Your task to perform on an android device: Open settings on Google Maps Image 0: 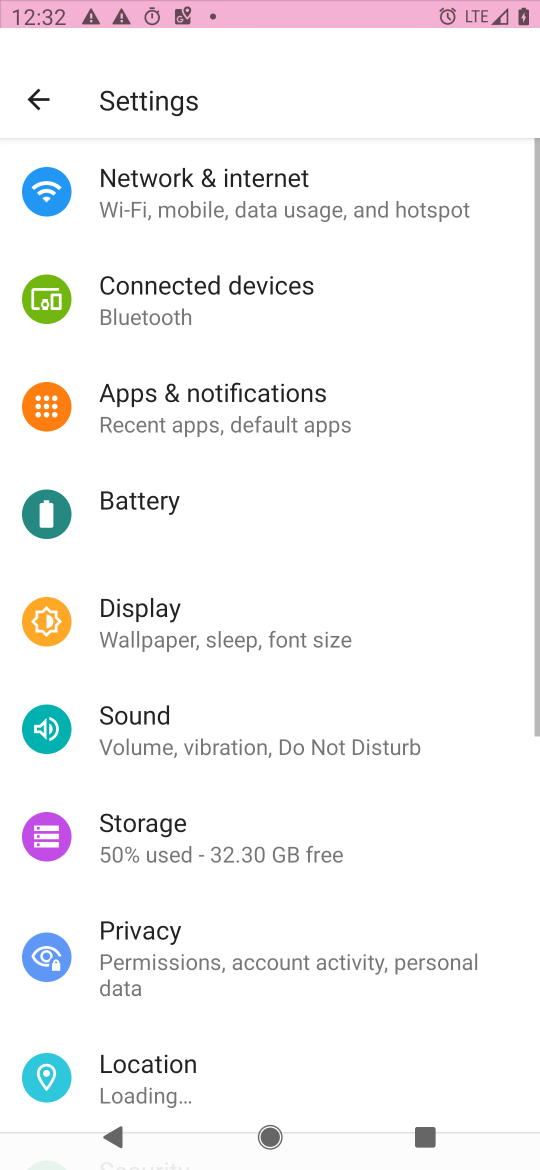
Step 0: click (318, 301)
Your task to perform on an android device: Open settings on Google Maps Image 1: 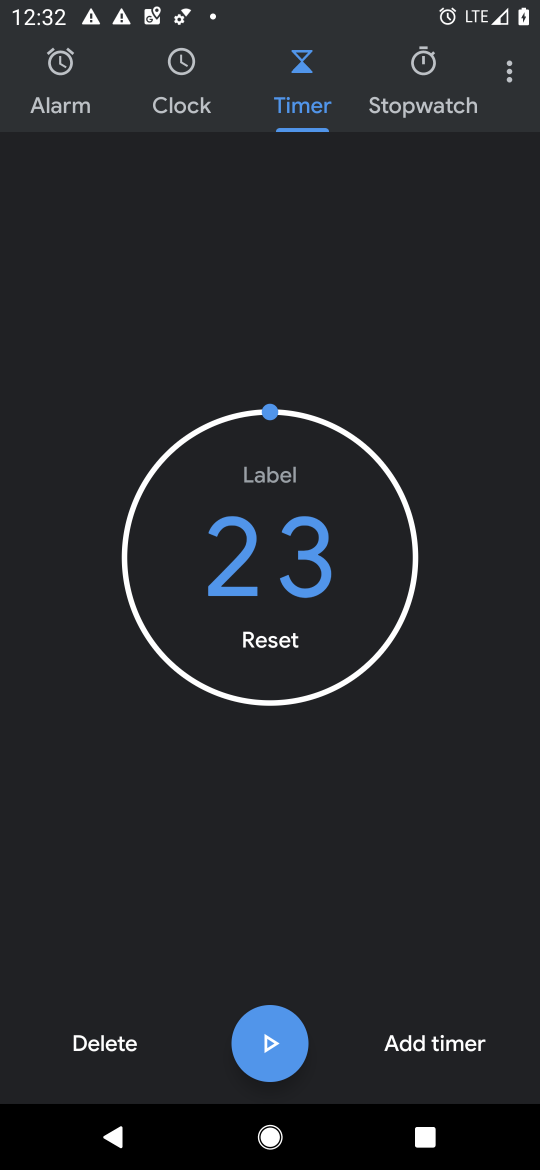
Step 1: press home button
Your task to perform on an android device: Open settings on Google Maps Image 2: 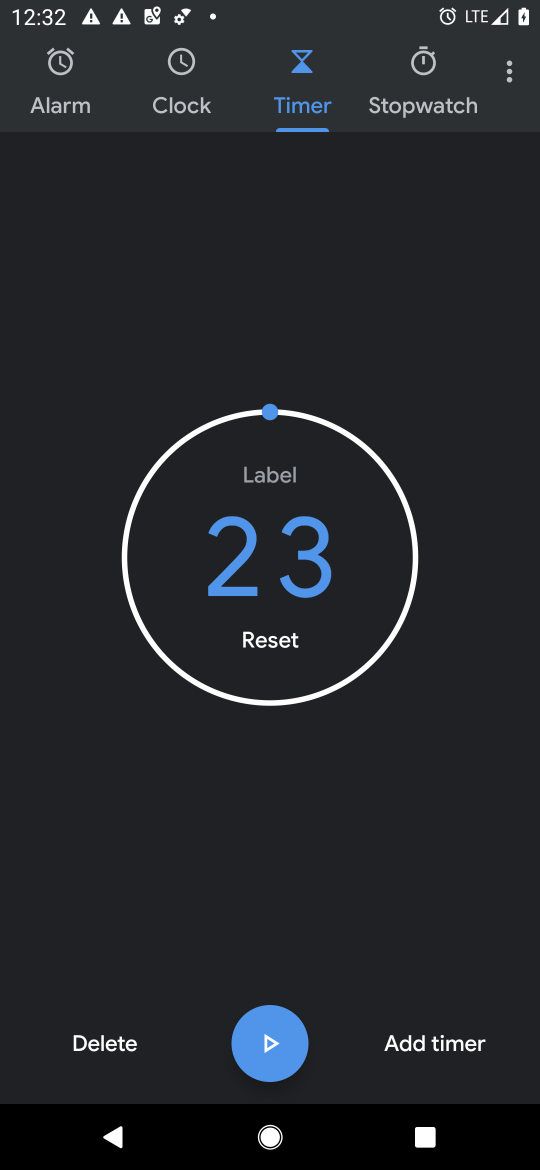
Step 2: click (354, 358)
Your task to perform on an android device: Open settings on Google Maps Image 3: 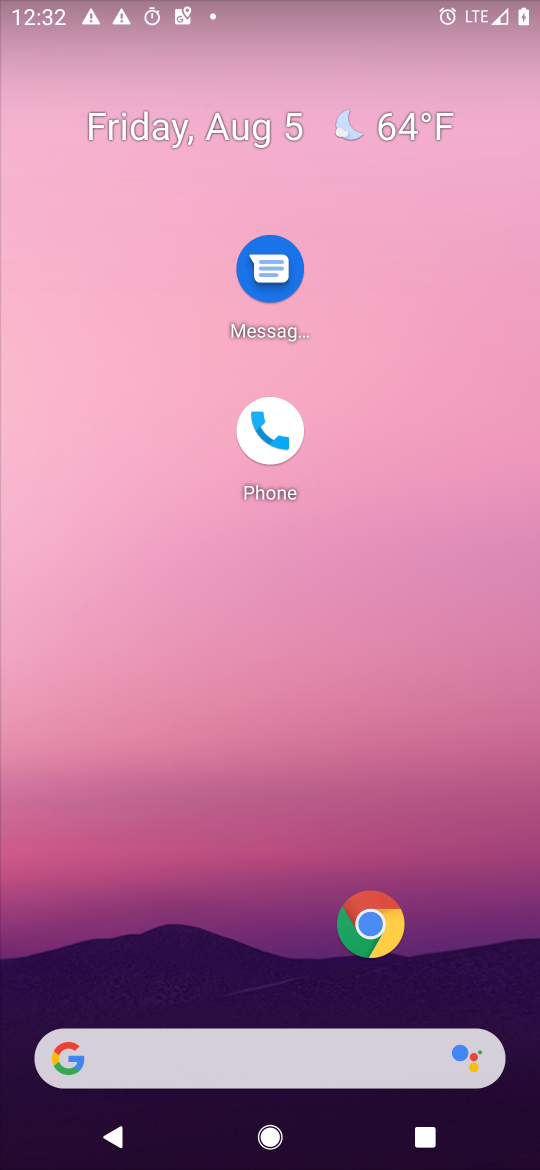
Step 3: drag from (221, 820) to (201, 93)
Your task to perform on an android device: Open settings on Google Maps Image 4: 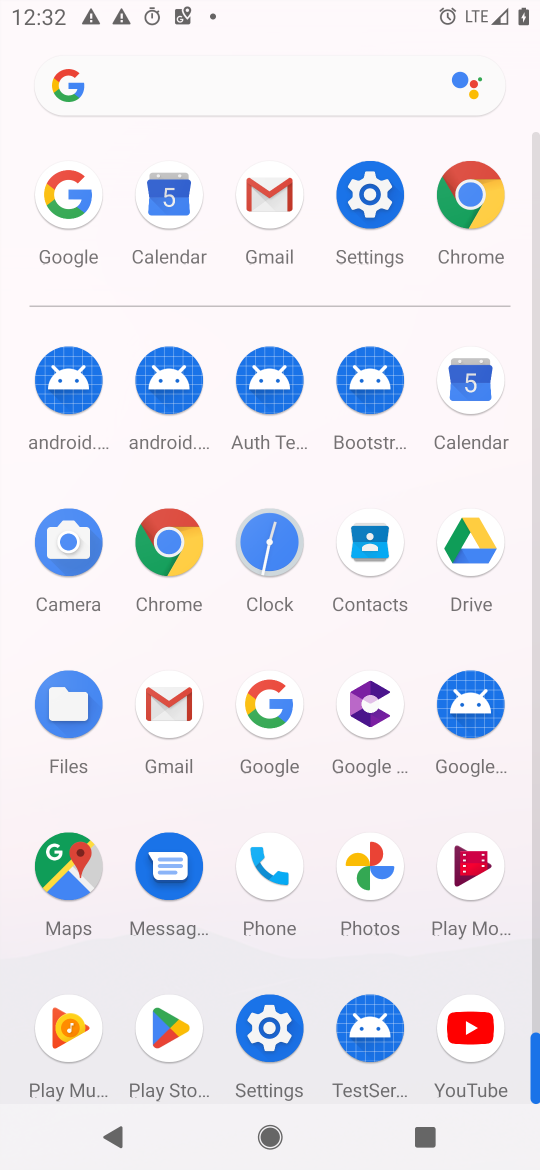
Step 4: click (70, 862)
Your task to perform on an android device: Open settings on Google Maps Image 5: 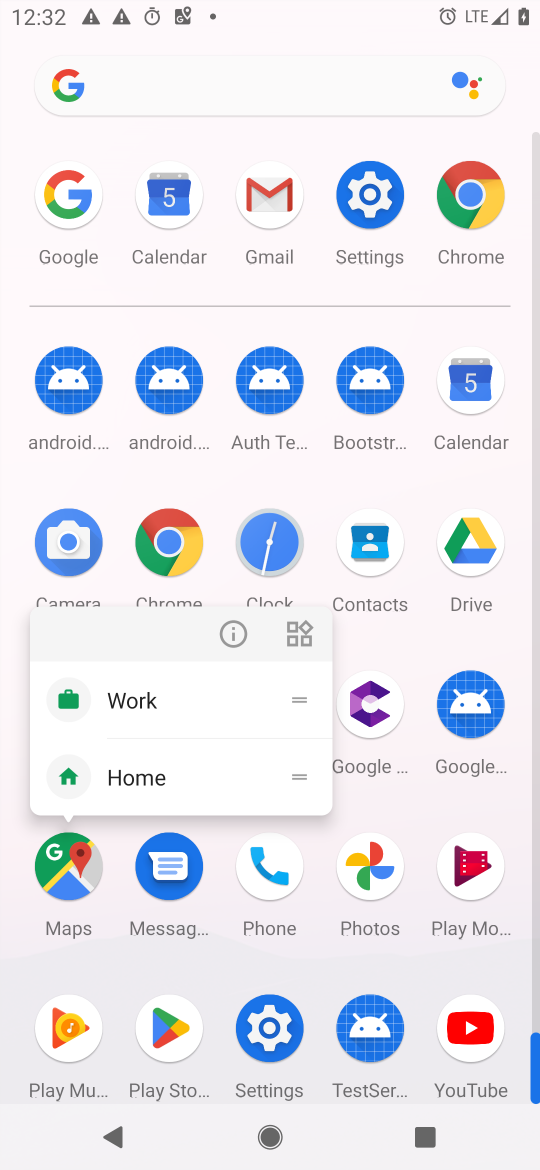
Step 5: click (225, 628)
Your task to perform on an android device: Open settings on Google Maps Image 6: 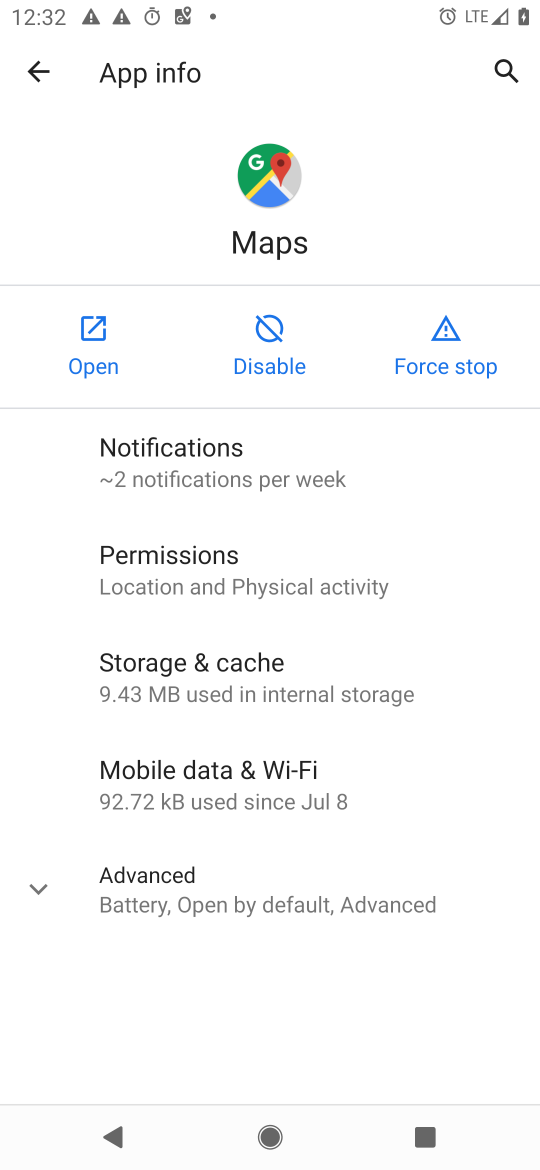
Step 6: click (85, 339)
Your task to perform on an android device: Open settings on Google Maps Image 7: 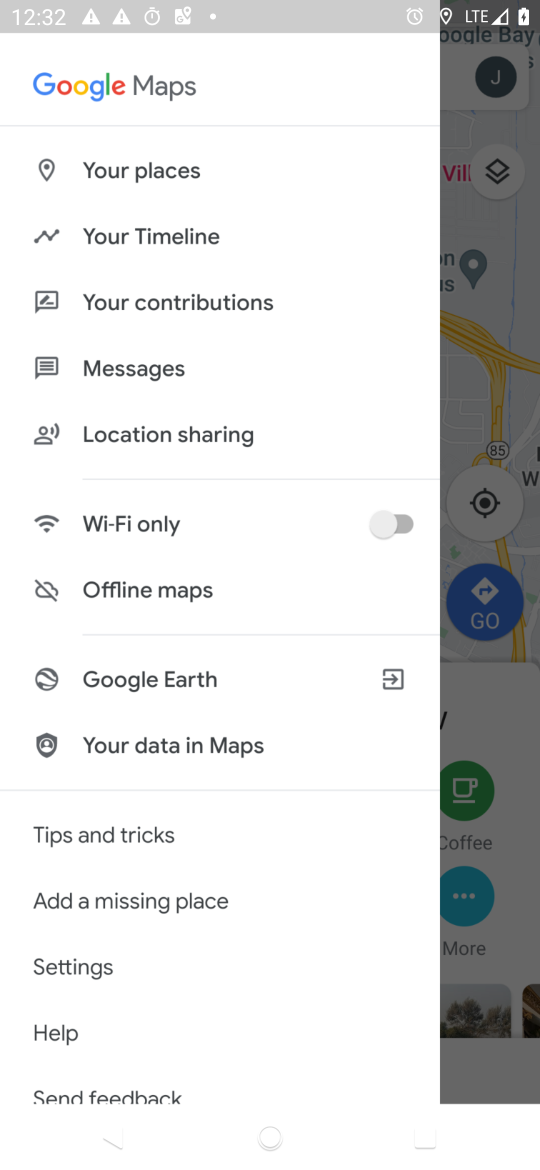
Step 7: click (92, 960)
Your task to perform on an android device: Open settings on Google Maps Image 8: 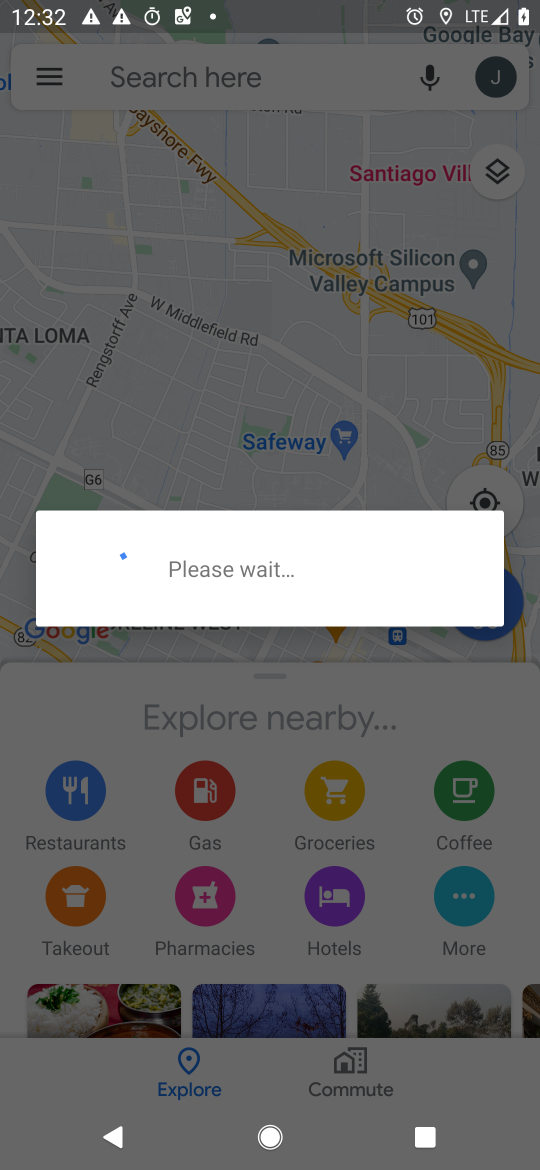
Step 8: press back button
Your task to perform on an android device: Open settings on Google Maps Image 9: 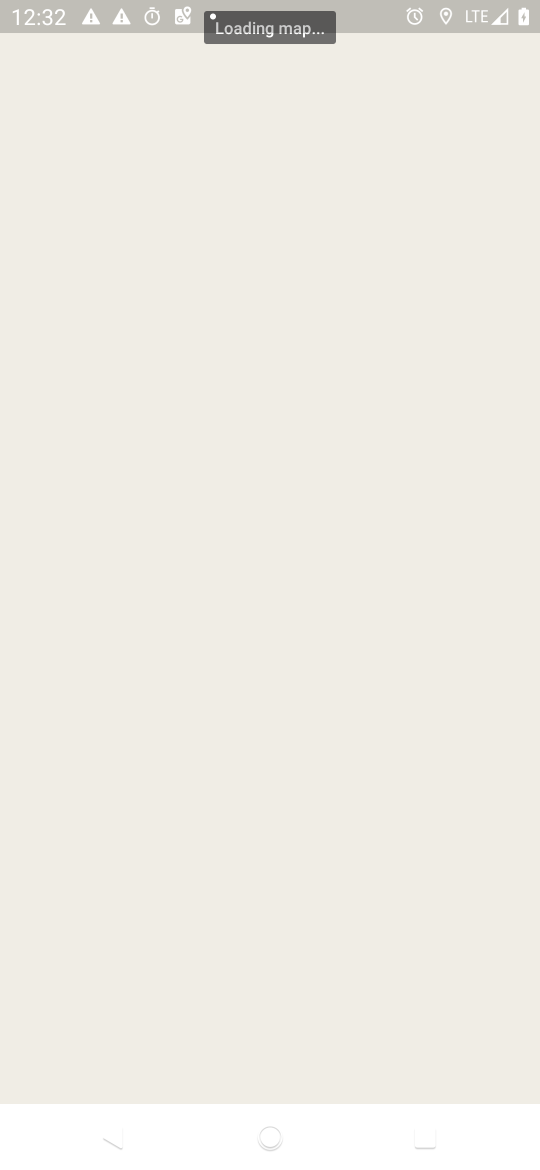
Step 9: click (60, 91)
Your task to perform on an android device: Open settings on Google Maps Image 10: 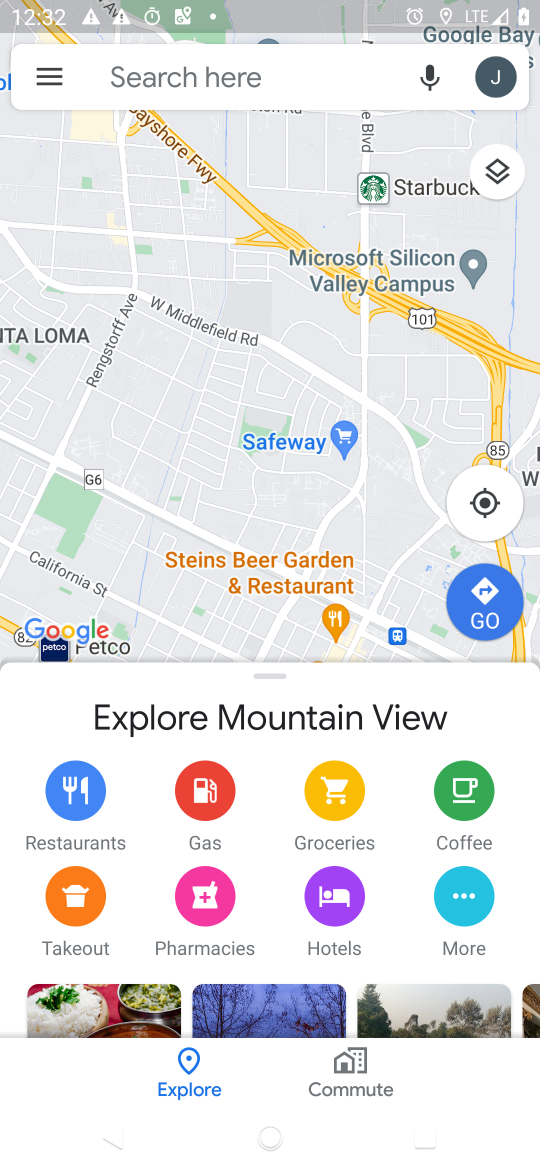
Step 10: click (50, 93)
Your task to perform on an android device: Open settings on Google Maps Image 11: 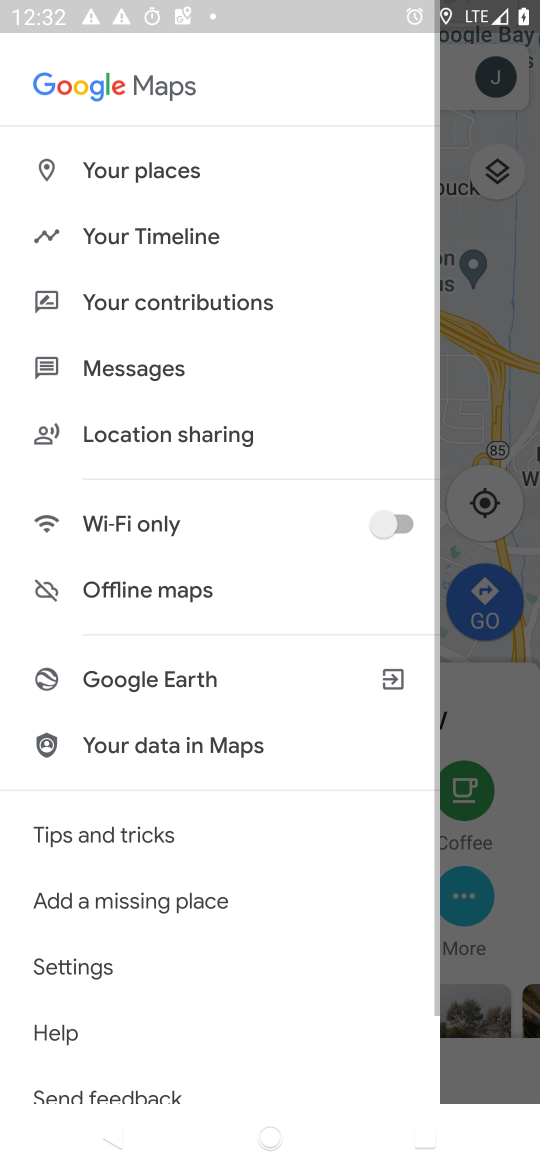
Step 11: click (87, 974)
Your task to perform on an android device: Open settings on Google Maps Image 12: 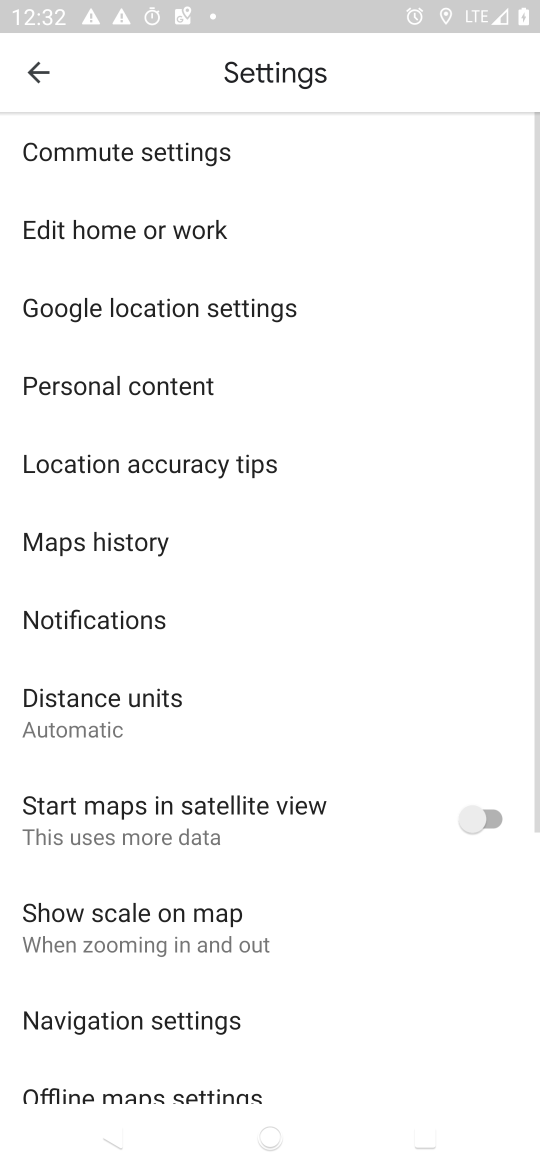
Step 12: task complete